Your task to perform on an android device: change notification settings in the gmail app Image 0: 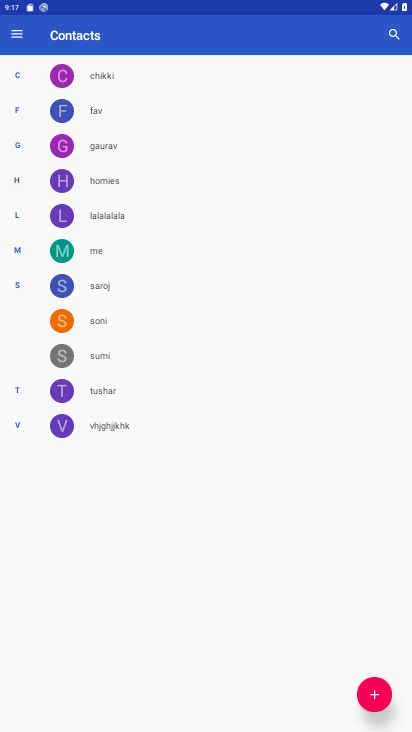
Step 0: press home button
Your task to perform on an android device: change notification settings in the gmail app Image 1: 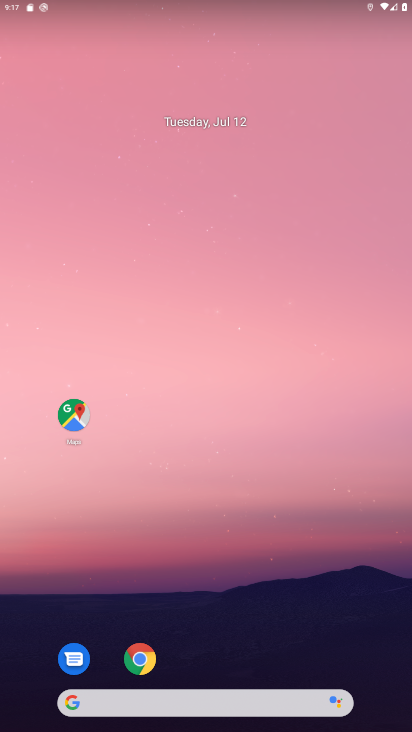
Step 1: drag from (263, 605) to (268, 275)
Your task to perform on an android device: change notification settings in the gmail app Image 2: 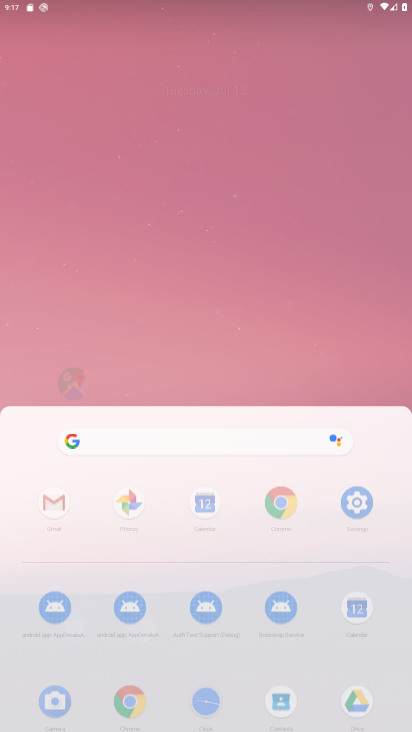
Step 2: drag from (270, 217) to (274, 72)
Your task to perform on an android device: change notification settings in the gmail app Image 3: 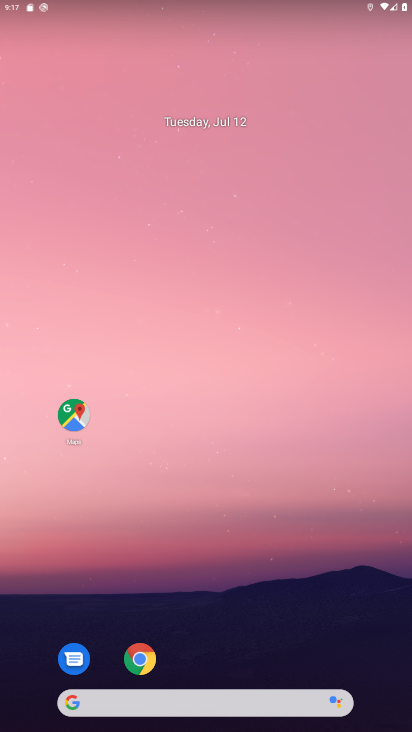
Step 3: drag from (278, 574) to (315, 14)
Your task to perform on an android device: change notification settings in the gmail app Image 4: 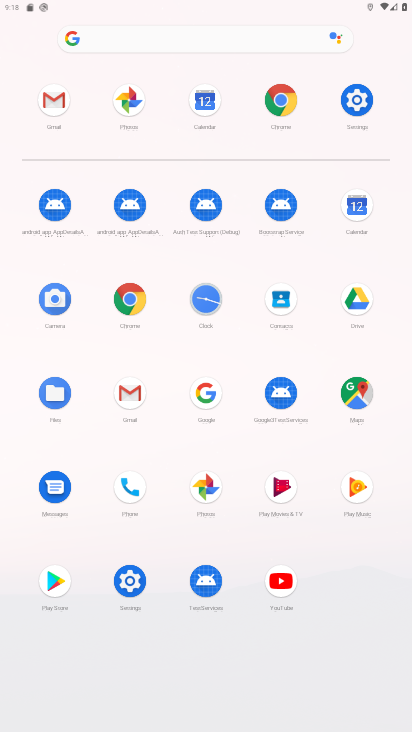
Step 4: click (128, 393)
Your task to perform on an android device: change notification settings in the gmail app Image 5: 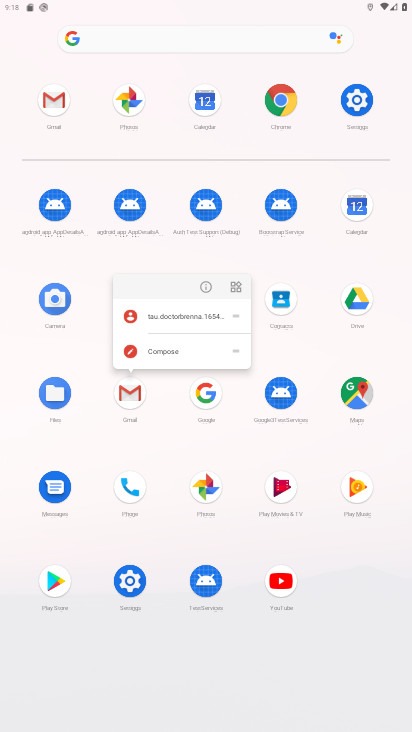
Step 5: click (204, 287)
Your task to perform on an android device: change notification settings in the gmail app Image 6: 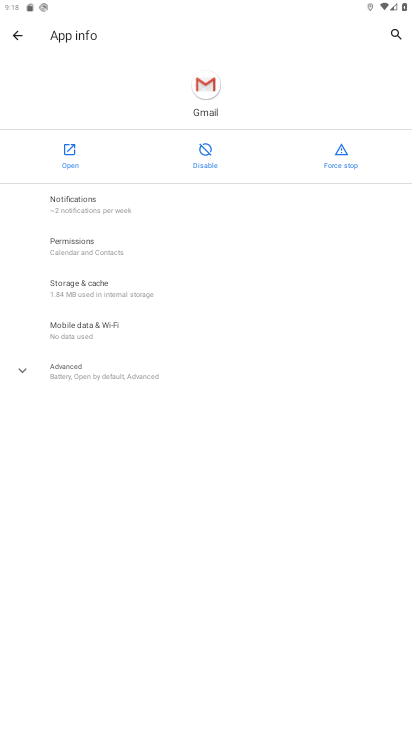
Step 6: click (87, 198)
Your task to perform on an android device: change notification settings in the gmail app Image 7: 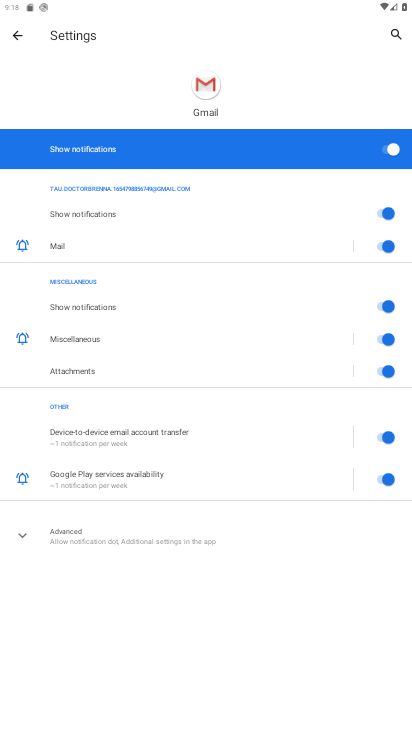
Step 7: click (388, 207)
Your task to perform on an android device: change notification settings in the gmail app Image 8: 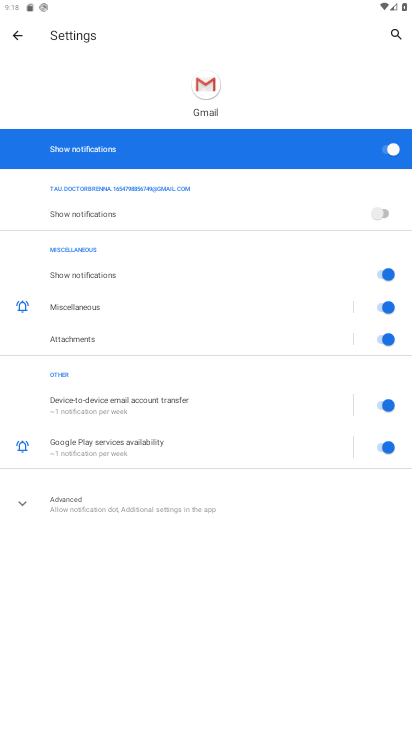
Step 8: task complete